Your task to perform on an android device: Go to settings Image 0: 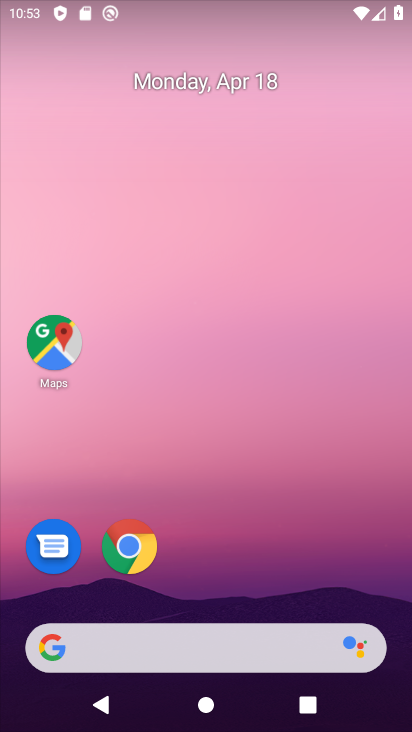
Step 0: drag from (384, 590) to (363, 79)
Your task to perform on an android device: Go to settings Image 1: 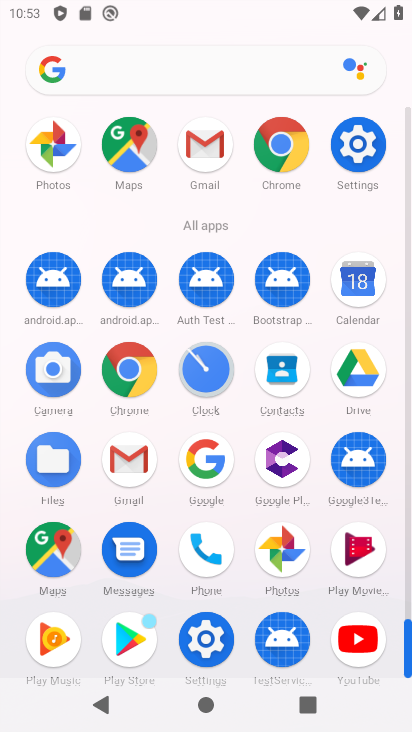
Step 1: click (358, 141)
Your task to perform on an android device: Go to settings Image 2: 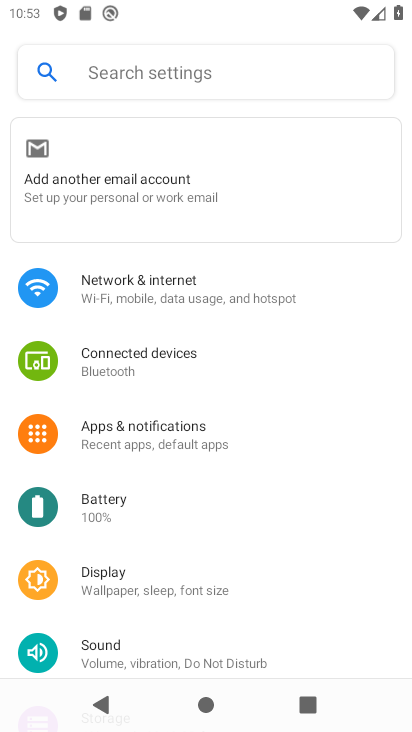
Step 2: task complete